Your task to perform on an android device: Open calendar and show me the first week of next month Image 0: 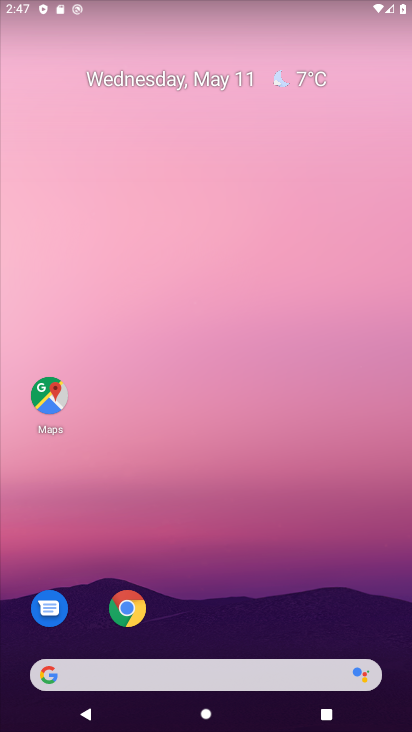
Step 0: drag from (205, 635) to (272, 292)
Your task to perform on an android device: Open calendar and show me the first week of next month Image 1: 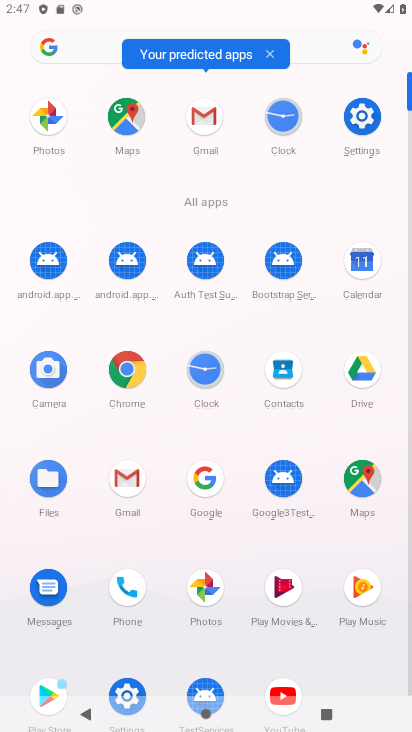
Step 1: click (357, 275)
Your task to perform on an android device: Open calendar and show me the first week of next month Image 2: 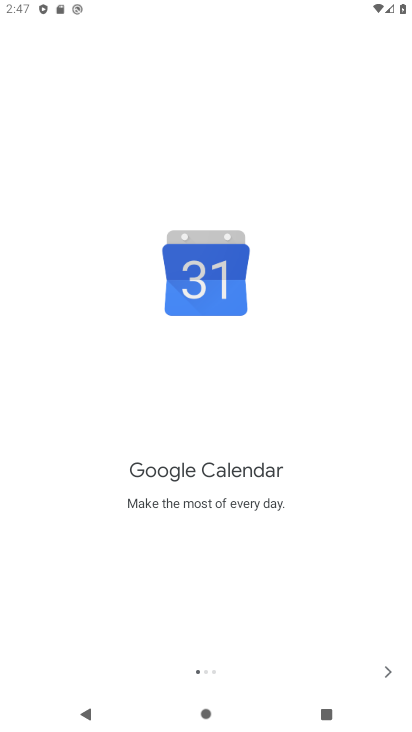
Step 2: click (380, 675)
Your task to perform on an android device: Open calendar and show me the first week of next month Image 3: 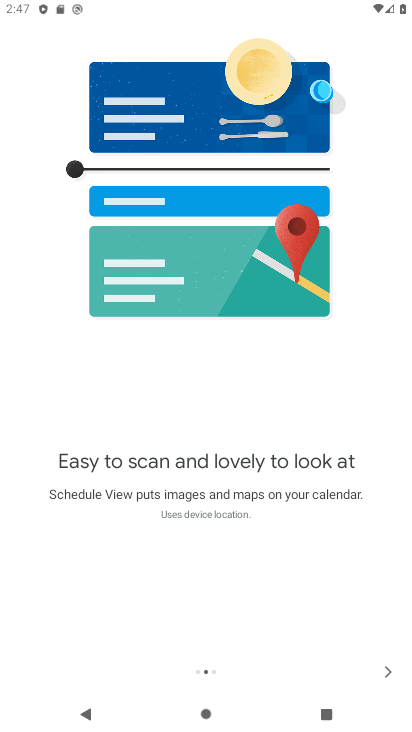
Step 3: click (384, 670)
Your task to perform on an android device: Open calendar and show me the first week of next month Image 4: 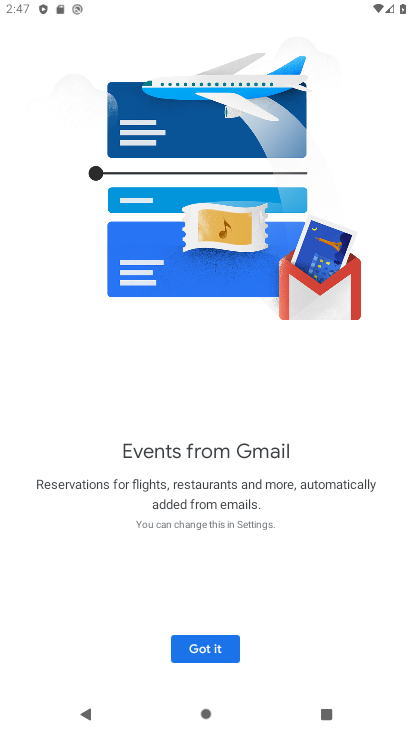
Step 4: click (209, 645)
Your task to perform on an android device: Open calendar and show me the first week of next month Image 5: 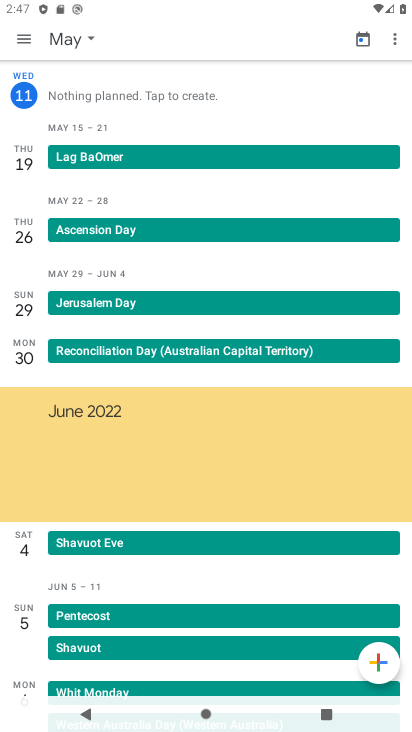
Step 5: click (69, 43)
Your task to perform on an android device: Open calendar and show me the first week of next month Image 6: 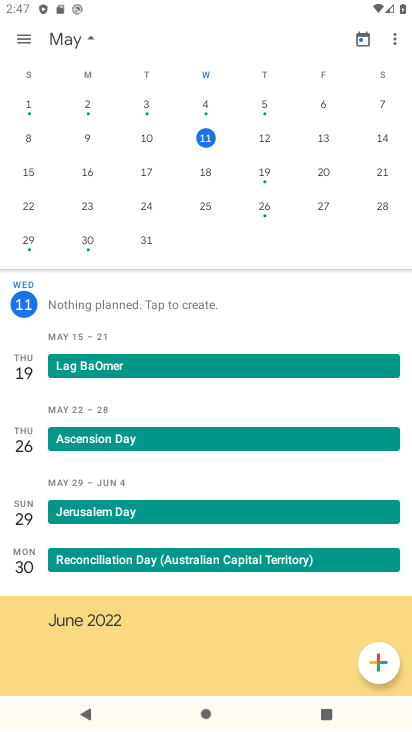
Step 6: drag from (332, 198) to (10, 189)
Your task to perform on an android device: Open calendar and show me the first week of next month Image 7: 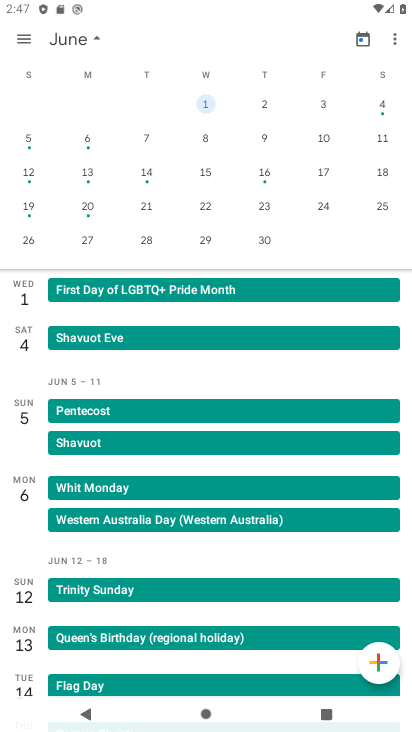
Step 7: click (279, 105)
Your task to perform on an android device: Open calendar and show me the first week of next month Image 8: 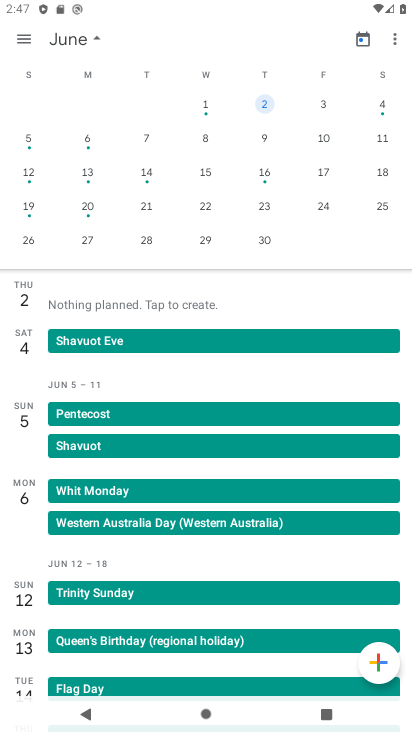
Step 8: click (332, 107)
Your task to perform on an android device: Open calendar and show me the first week of next month Image 9: 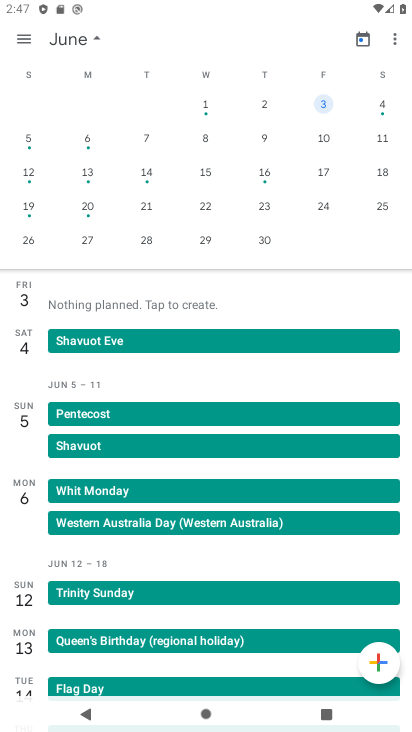
Step 9: click (397, 117)
Your task to perform on an android device: Open calendar and show me the first week of next month Image 10: 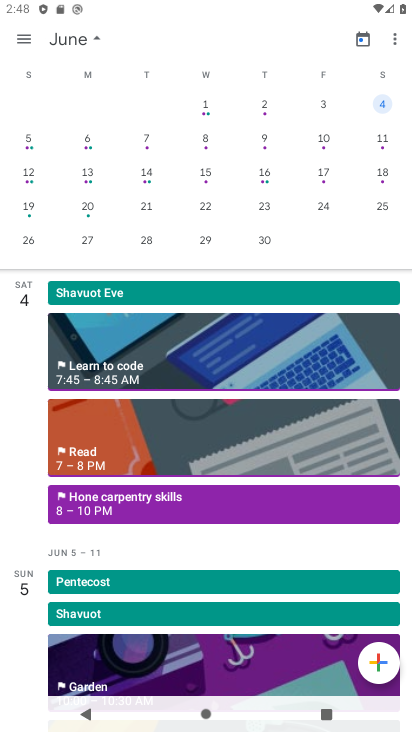
Step 10: task complete